Your task to perform on an android device: show emergency info Image 0: 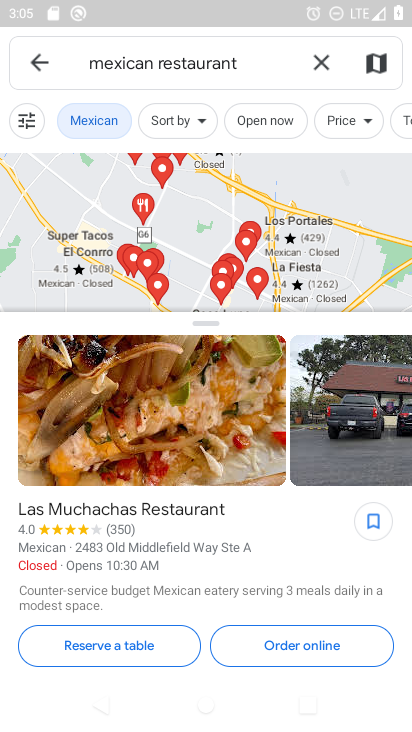
Step 0: press home button
Your task to perform on an android device: show emergency info Image 1: 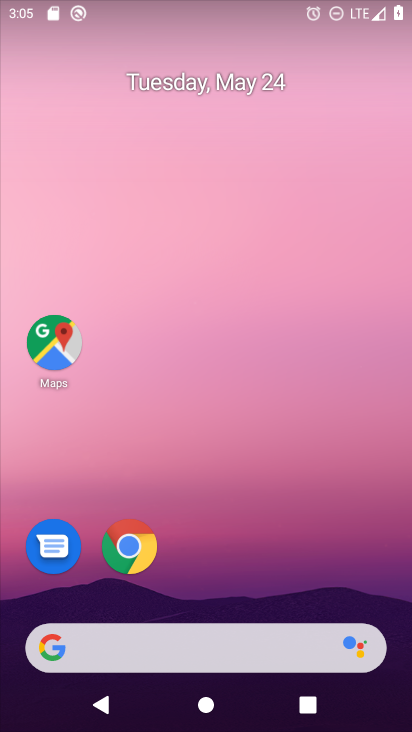
Step 1: drag from (257, 614) to (298, 32)
Your task to perform on an android device: show emergency info Image 2: 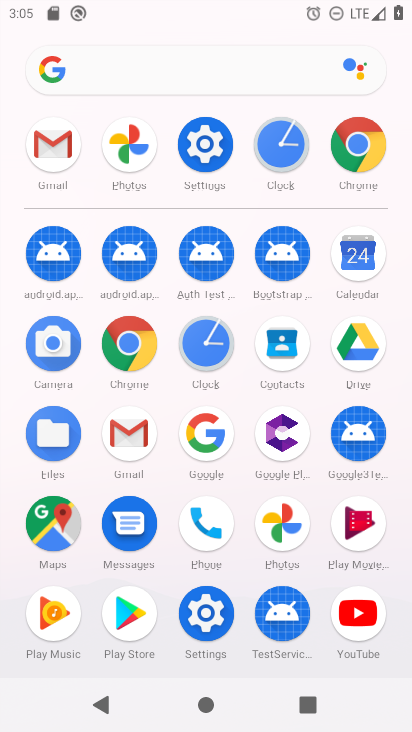
Step 2: click (200, 172)
Your task to perform on an android device: show emergency info Image 3: 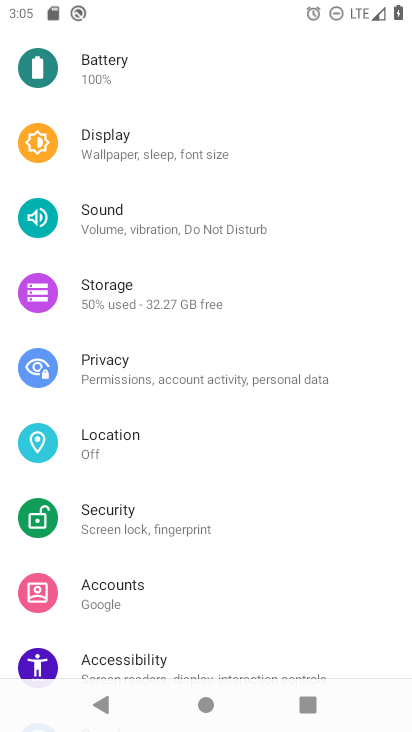
Step 3: drag from (223, 655) to (359, 53)
Your task to perform on an android device: show emergency info Image 4: 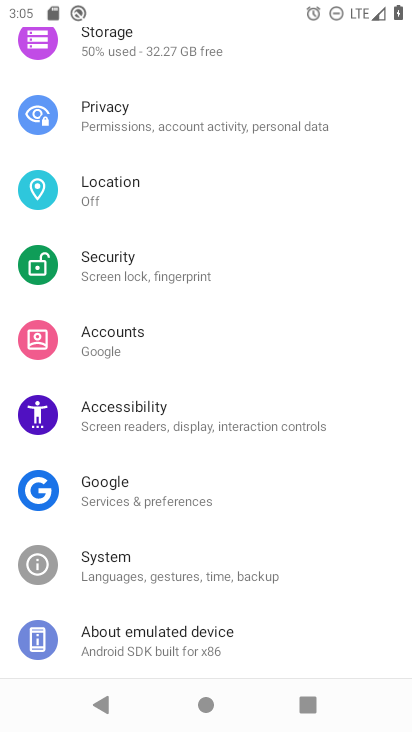
Step 4: click (224, 651)
Your task to perform on an android device: show emergency info Image 5: 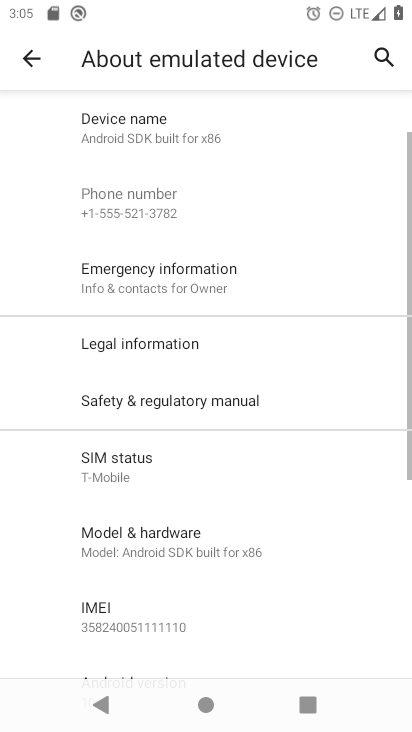
Step 5: click (198, 283)
Your task to perform on an android device: show emergency info Image 6: 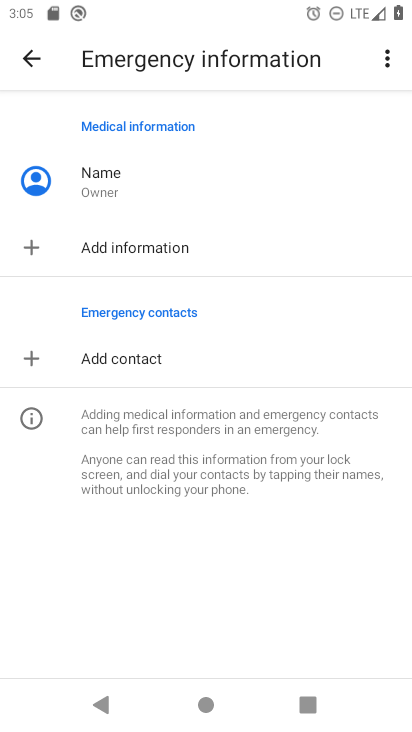
Step 6: task complete